Your task to perform on an android device: Open wifi settings Image 0: 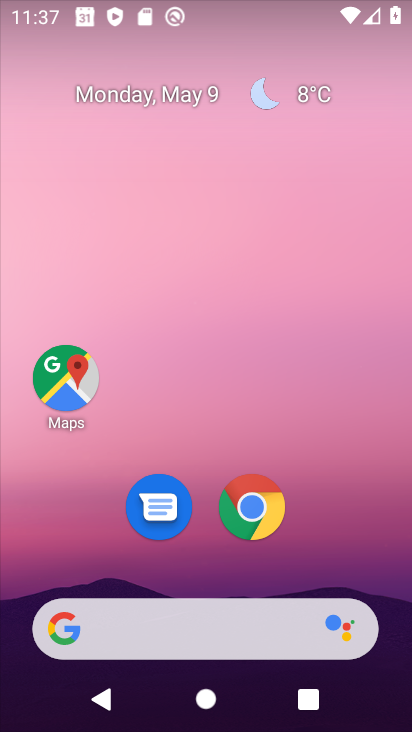
Step 0: drag from (252, 567) to (223, 156)
Your task to perform on an android device: Open wifi settings Image 1: 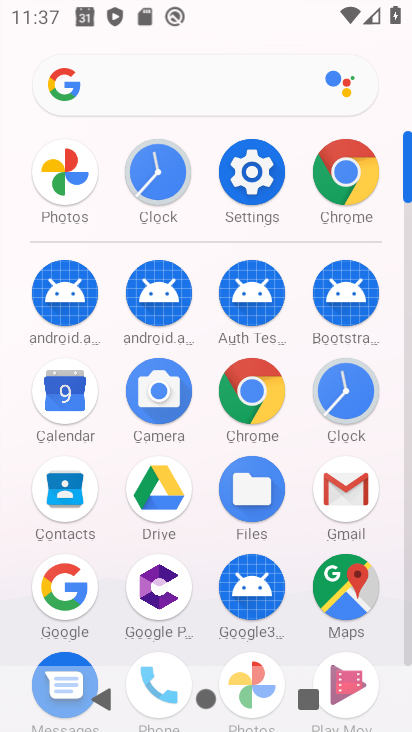
Step 1: click (258, 172)
Your task to perform on an android device: Open wifi settings Image 2: 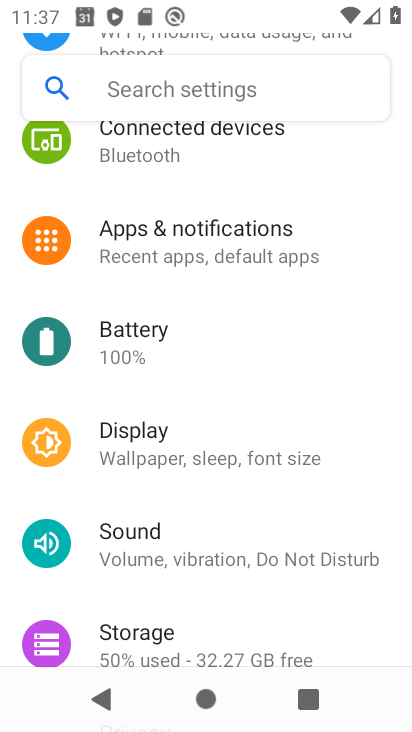
Step 2: drag from (294, 204) to (307, 468)
Your task to perform on an android device: Open wifi settings Image 3: 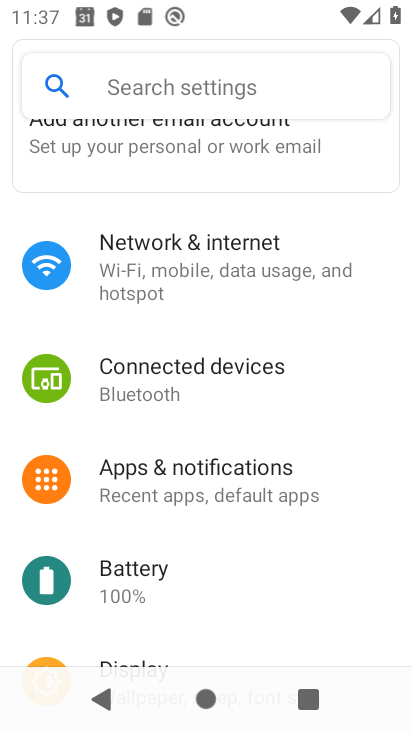
Step 3: click (256, 288)
Your task to perform on an android device: Open wifi settings Image 4: 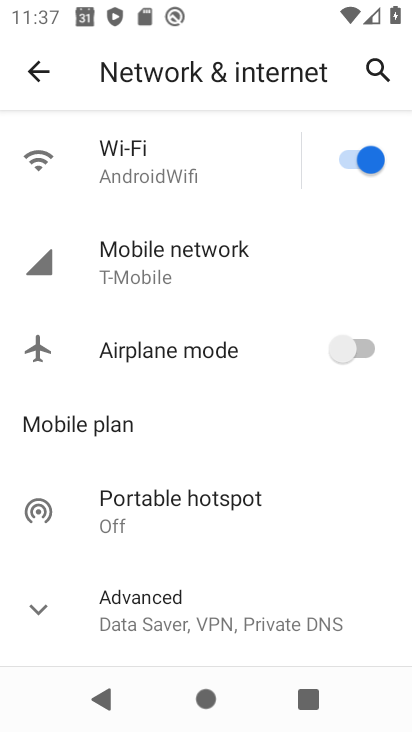
Step 4: click (125, 164)
Your task to perform on an android device: Open wifi settings Image 5: 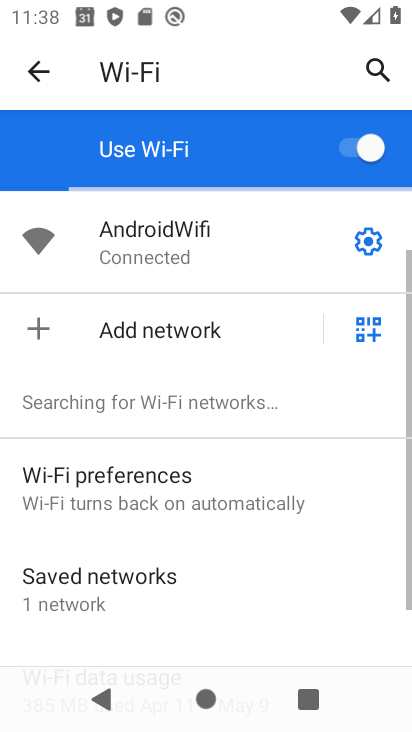
Step 5: task complete